Your task to perform on an android device: open wifi settings Image 0: 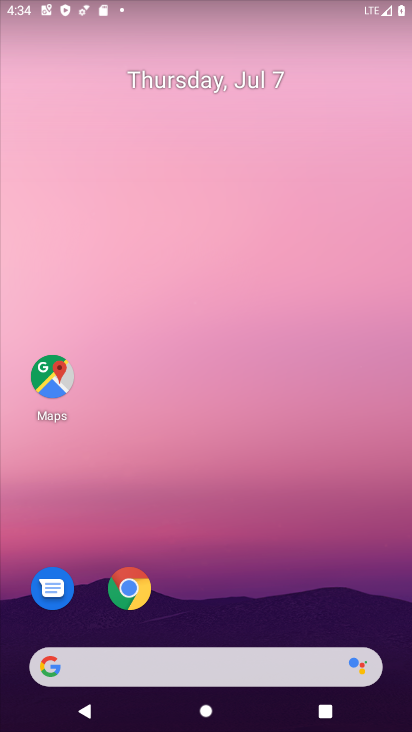
Step 0: drag from (297, 657) to (328, 109)
Your task to perform on an android device: open wifi settings Image 1: 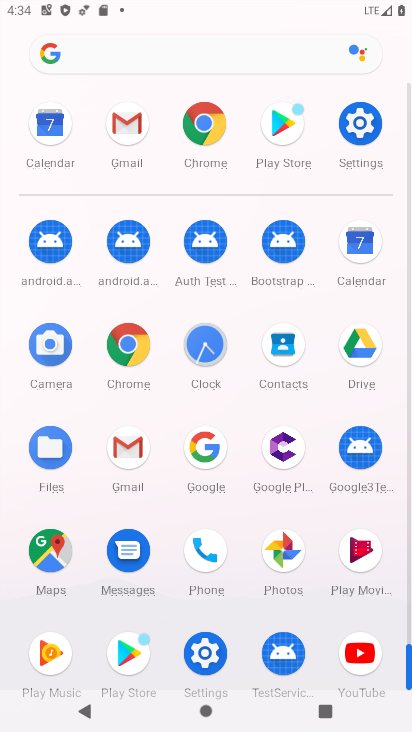
Step 1: click (364, 134)
Your task to perform on an android device: open wifi settings Image 2: 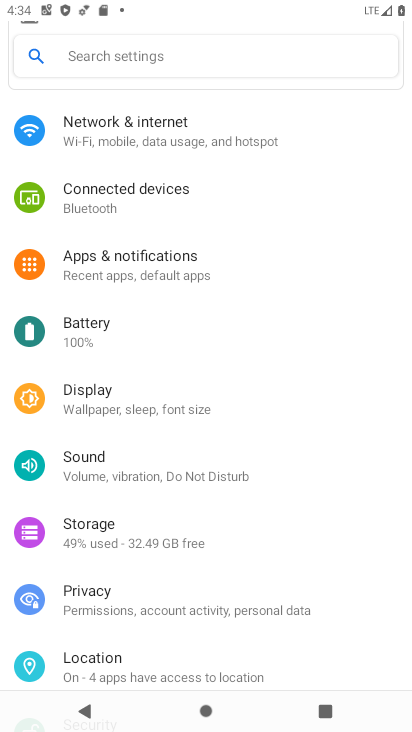
Step 2: click (194, 135)
Your task to perform on an android device: open wifi settings Image 3: 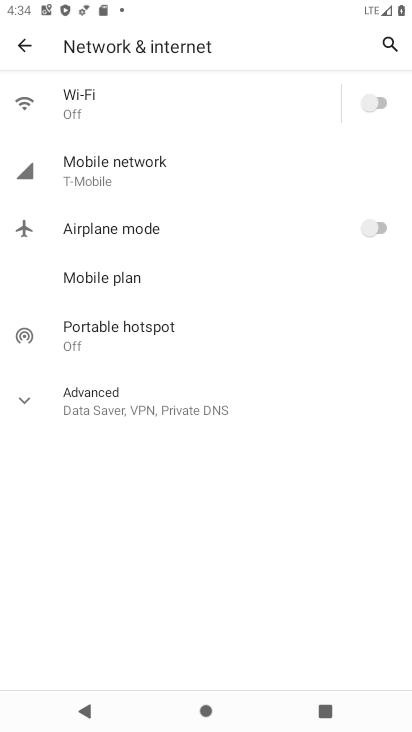
Step 3: click (190, 117)
Your task to perform on an android device: open wifi settings Image 4: 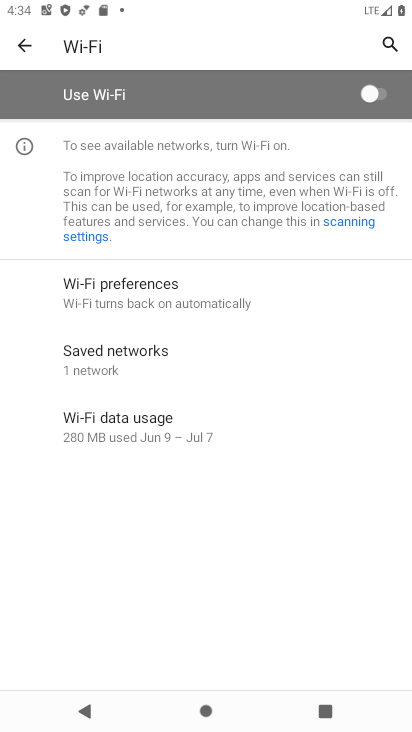
Step 4: task complete